Your task to perform on an android device: delete the emails in spam in the gmail app Image 0: 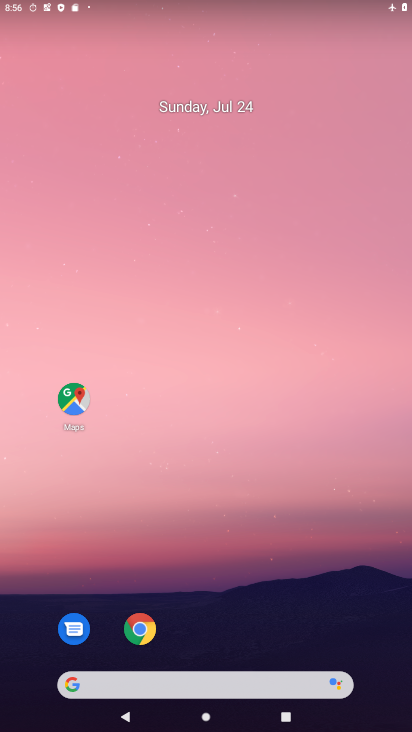
Step 0: drag from (257, 661) to (191, 154)
Your task to perform on an android device: delete the emails in spam in the gmail app Image 1: 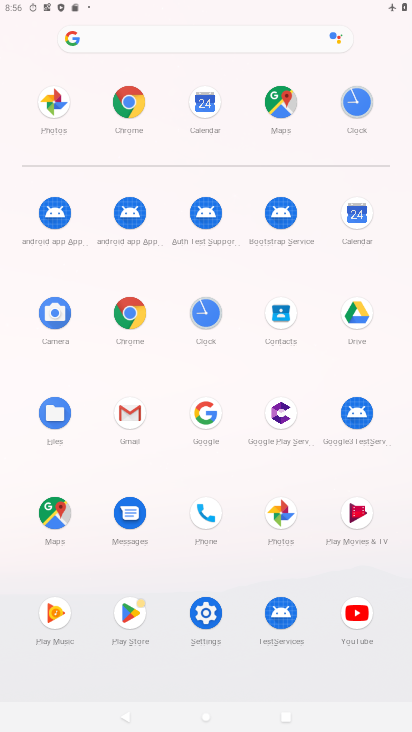
Step 1: click (125, 435)
Your task to perform on an android device: delete the emails in spam in the gmail app Image 2: 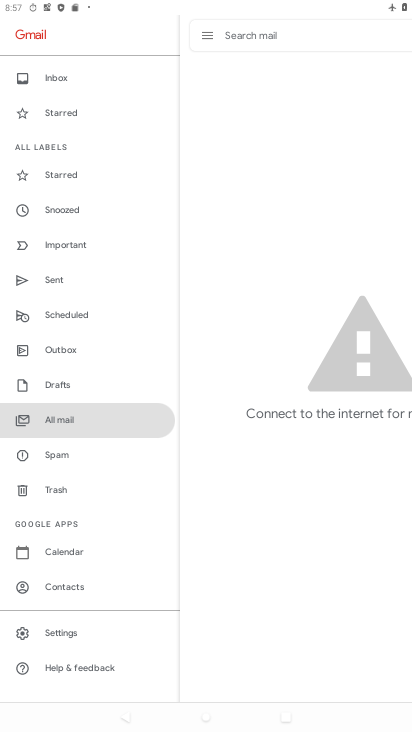
Step 2: click (77, 456)
Your task to perform on an android device: delete the emails in spam in the gmail app Image 3: 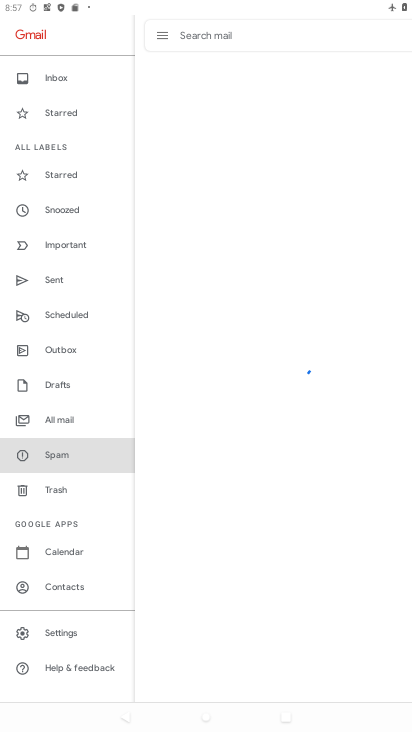
Step 3: task complete